Your task to perform on an android device: Open Wikipedia Image 0: 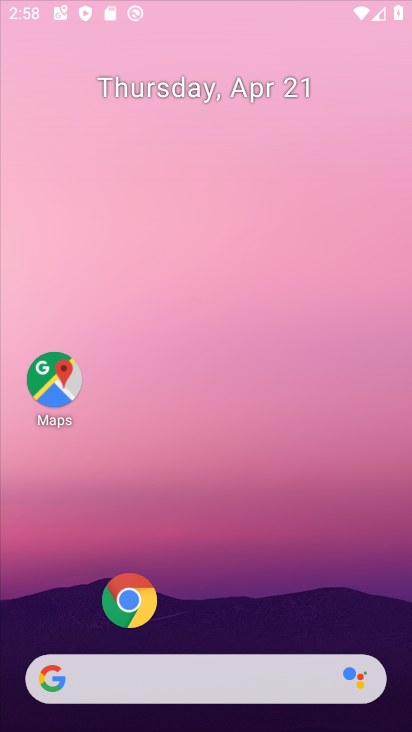
Step 0: drag from (290, 553) to (245, 84)
Your task to perform on an android device: Open Wikipedia Image 1: 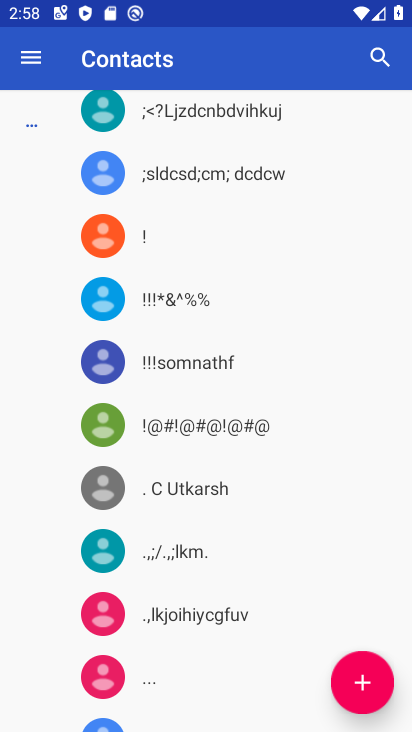
Step 1: press home button
Your task to perform on an android device: Open Wikipedia Image 2: 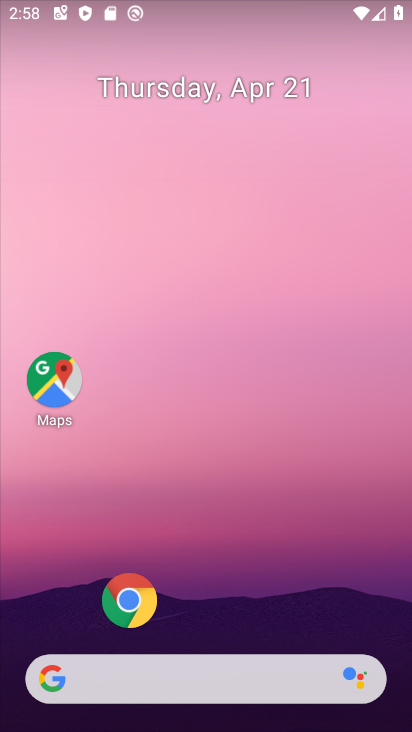
Step 2: drag from (245, 256) to (249, 221)
Your task to perform on an android device: Open Wikipedia Image 3: 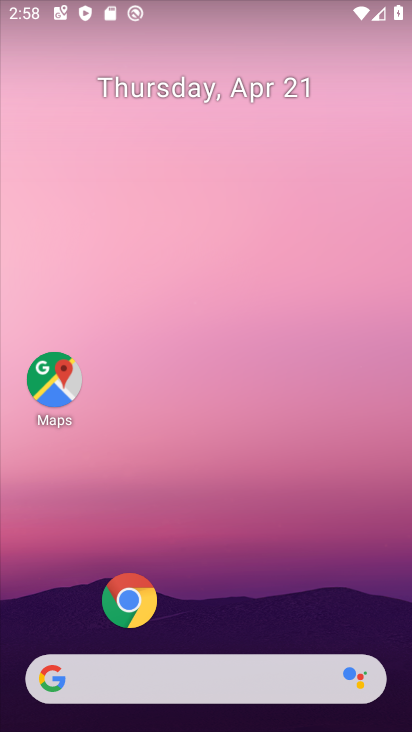
Step 3: drag from (269, 612) to (249, 132)
Your task to perform on an android device: Open Wikipedia Image 4: 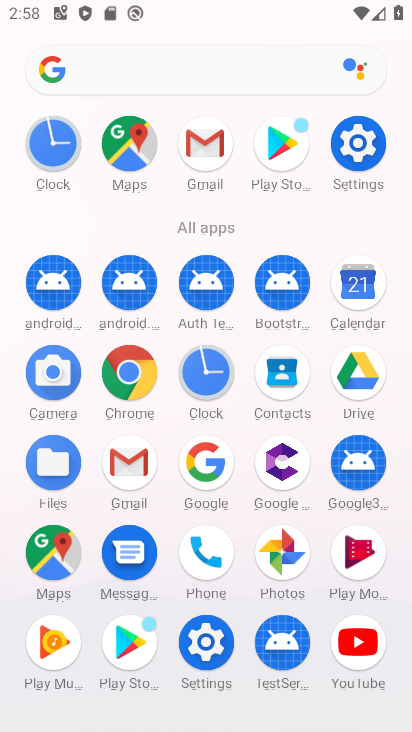
Step 4: drag from (244, 432) to (244, 198)
Your task to perform on an android device: Open Wikipedia Image 5: 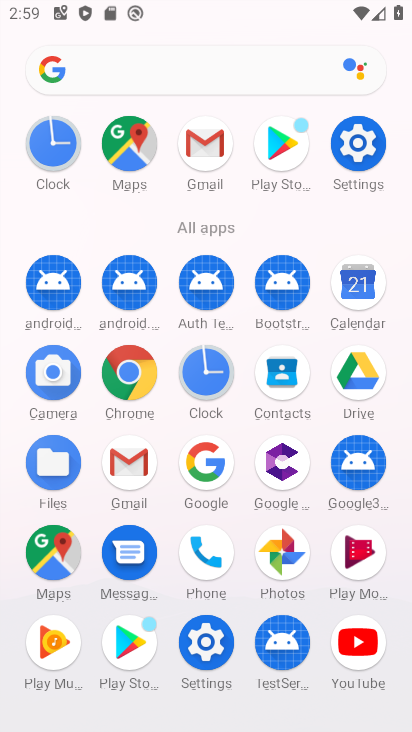
Step 5: click (131, 384)
Your task to perform on an android device: Open Wikipedia Image 6: 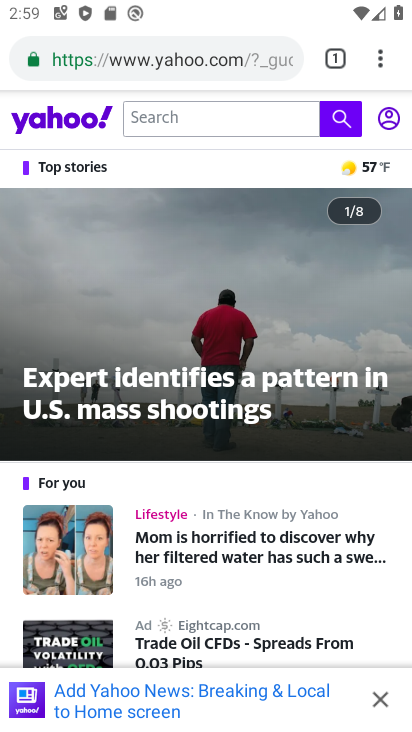
Step 6: click (343, 60)
Your task to perform on an android device: Open Wikipedia Image 7: 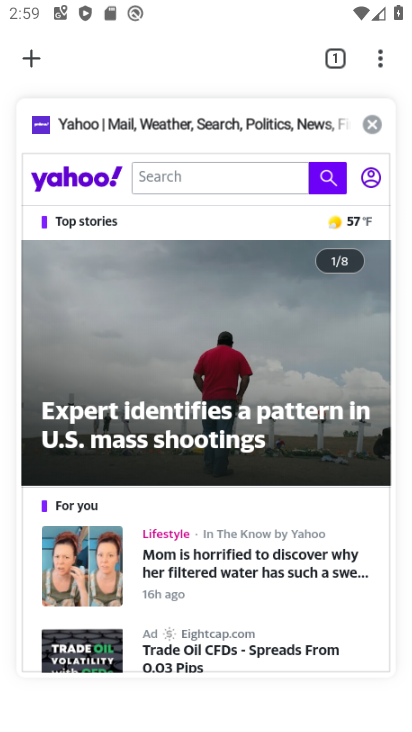
Step 7: click (29, 66)
Your task to perform on an android device: Open Wikipedia Image 8: 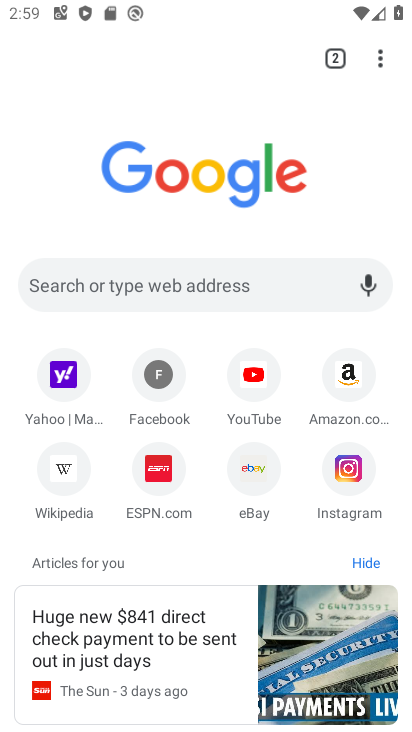
Step 8: click (130, 290)
Your task to perform on an android device: Open Wikipedia Image 9: 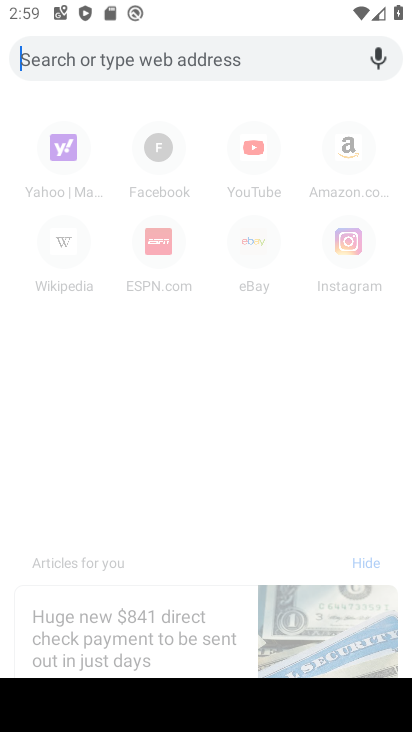
Step 9: type "Wikipedia"
Your task to perform on an android device: Open Wikipedia Image 10: 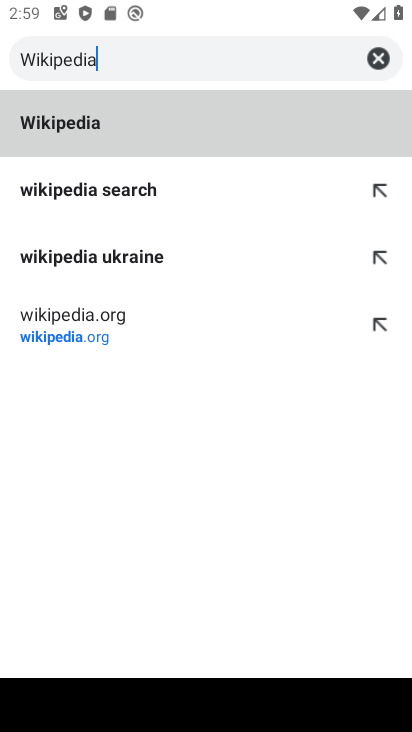
Step 10: click (129, 132)
Your task to perform on an android device: Open Wikipedia Image 11: 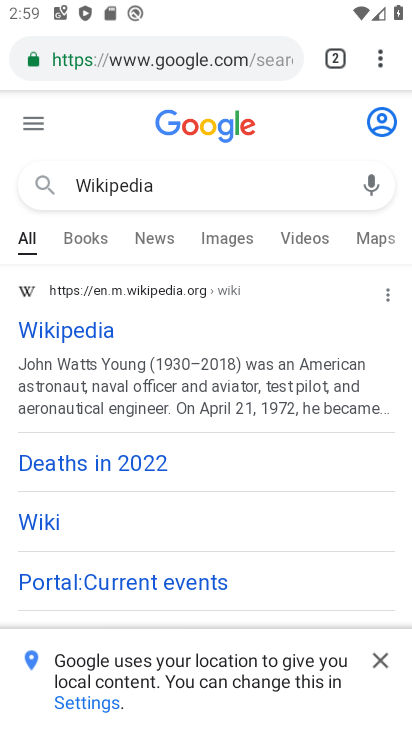
Step 11: click (63, 328)
Your task to perform on an android device: Open Wikipedia Image 12: 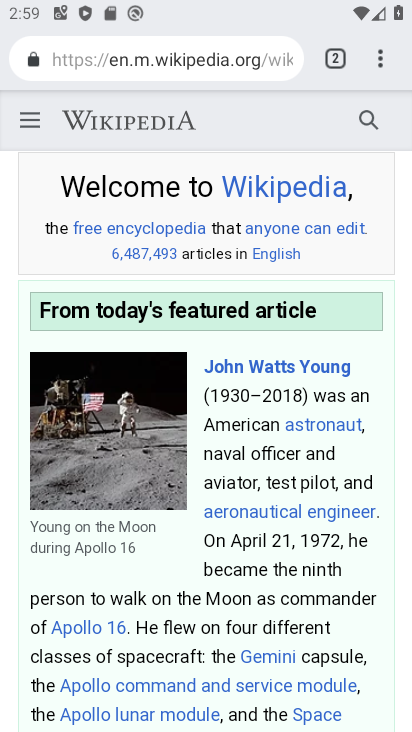
Step 12: task complete